Your task to perform on an android device: Clear the shopping cart on amazon. Search for razer blackwidow on amazon, select the first entry, and add it to the cart. Image 0: 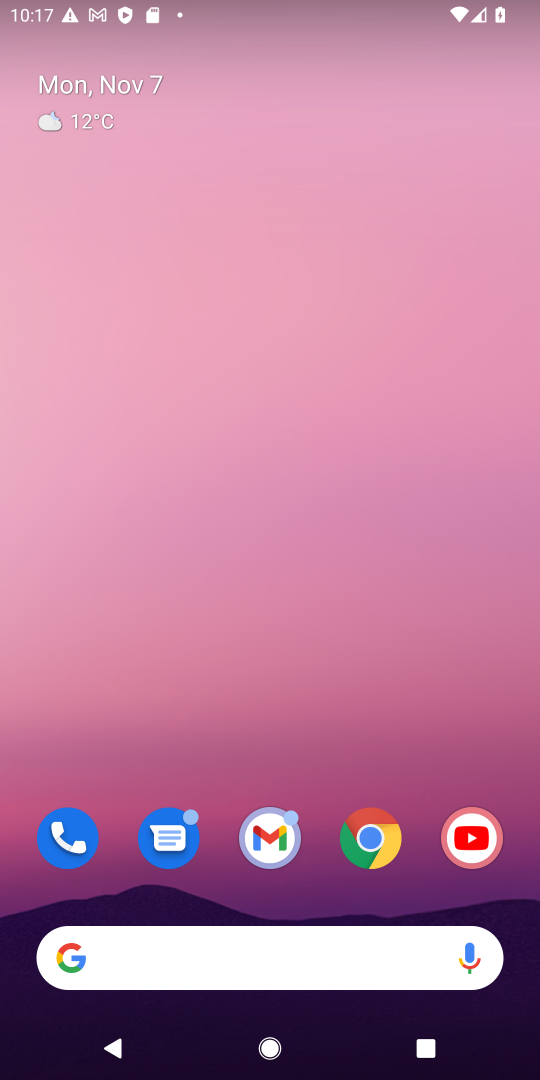
Step 0: click (396, 845)
Your task to perform on an android device: Clear the shopping cart on amazon. Search for razer blackwidow on amazon, select the first entry, and add it to the cart. Image 1: 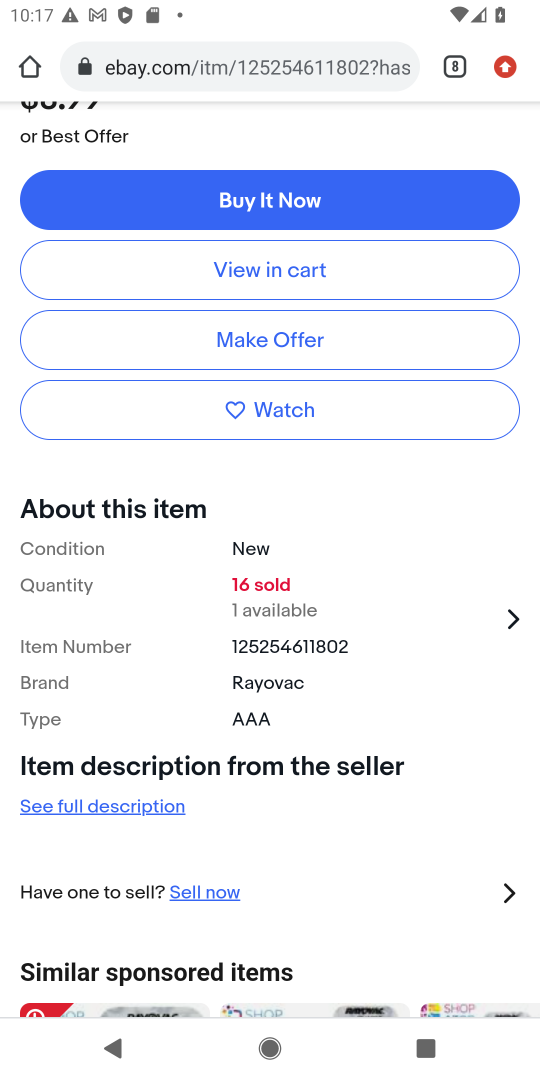
Step 1: click (442, 66)
Your task to perform on an android device: Clear the shopping cart on amazon. Search for razer blackwidow on amazon, select the first entry, and add it to the cart. Image 2: 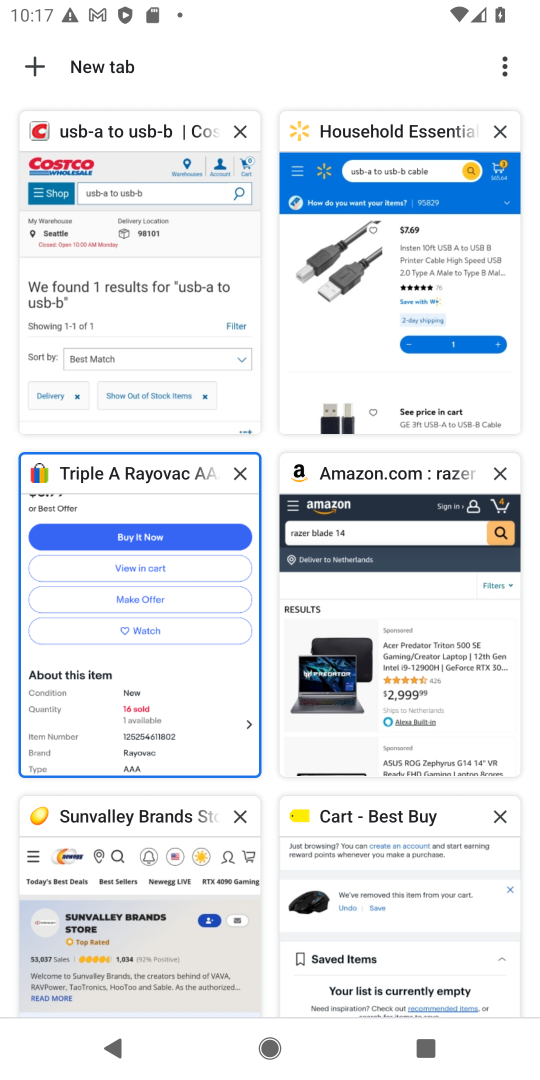
Step 2: click (409, 549)
Your task to perform on an android device: Clear the shopping cart on amazon. Search for razer blackwidow on amazon, select the first entry, and add it to the cart. Image 3: 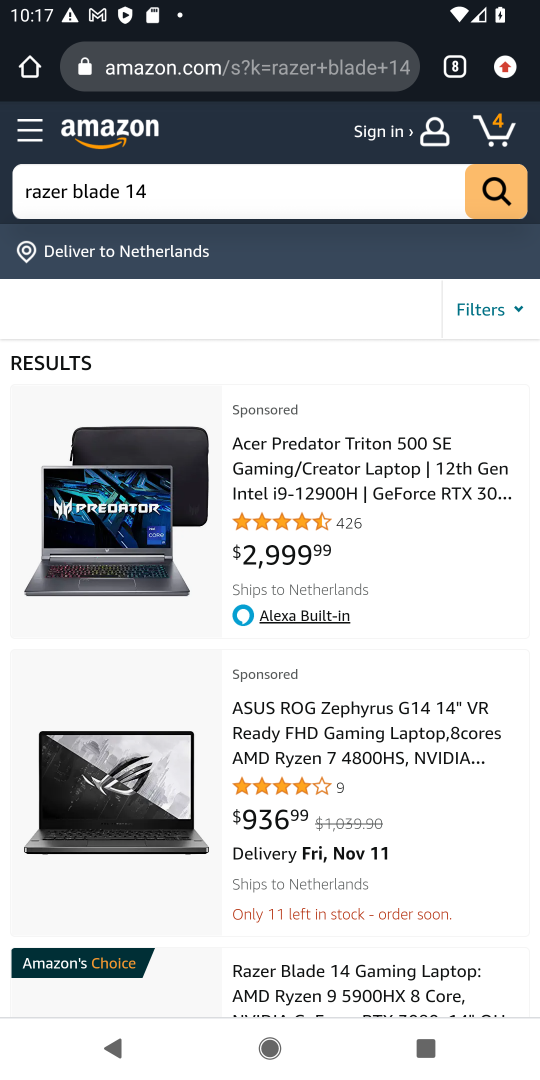
Step 3: click (486, 132)
Your task to perform on an android device: Clear the shopping cart on amazon. Search for razer blackwidow on amazon, select the first entry, and add it to the cart. Image 4: 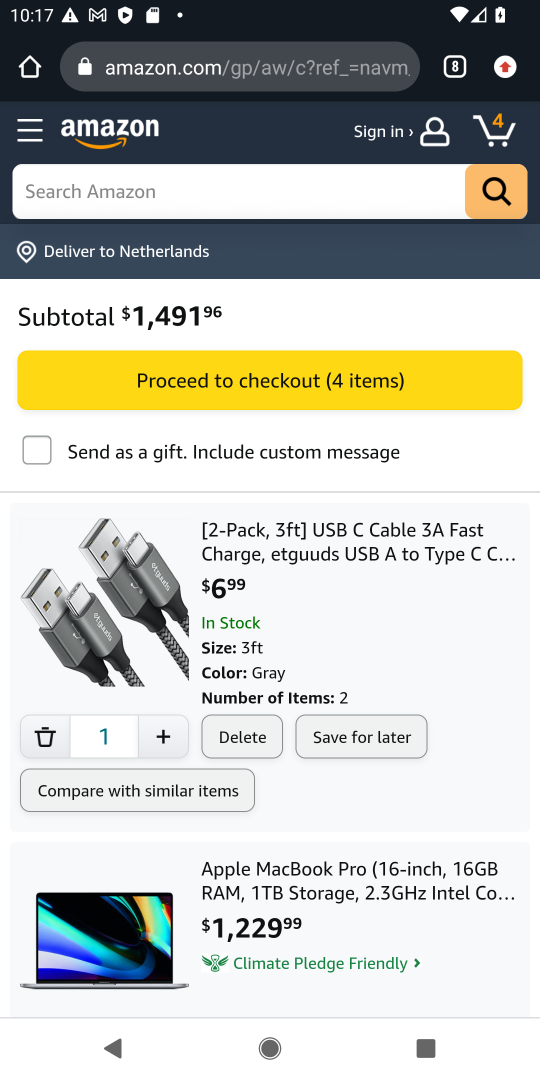
Step 4: click (250, 732)
Your task to perform on an android device: Clear the shopping cart on amazon. Search for razer blackwidow on amazon, select the first entry, and add it to the cart. Image 5: 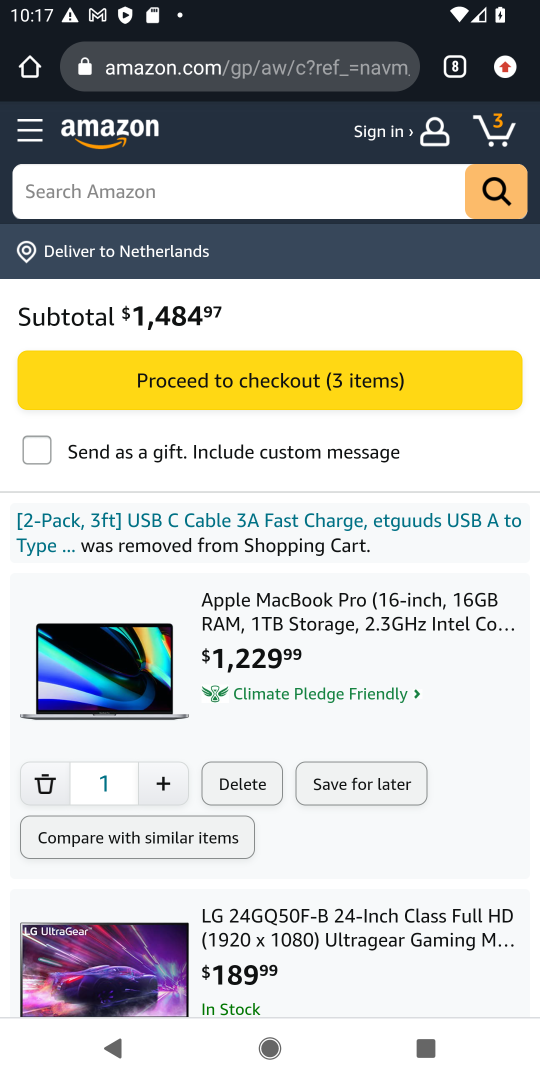
Step 5: click (250, 773)
Your task to perform on an android device: Clear the shopping cart on amazon. Search for razer blackwidow on amazon, select the first entry, and add it to the cart. Image 6: 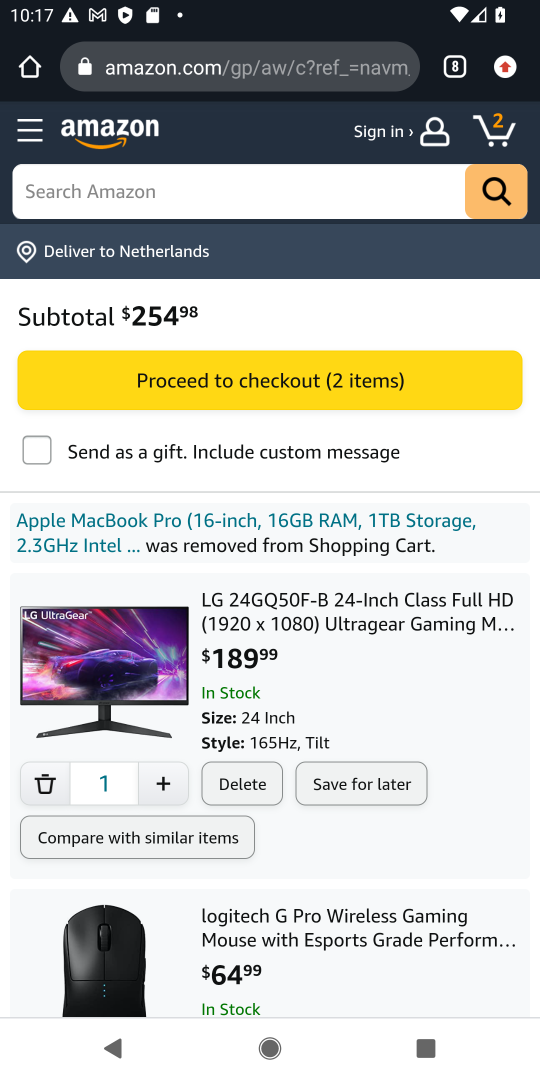
Step 6: click (250, 773)
Your task to perform on an android device: Clear the shopping cart on amazon. Search for razer blackwidow on amazon, select the first entry, and add it to the cart. Image 7: 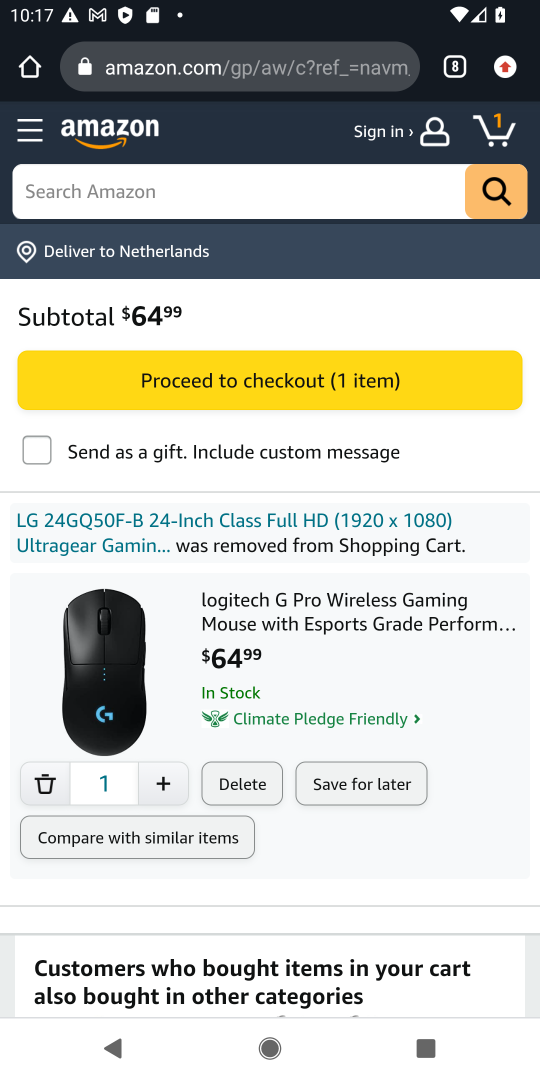
Step 7: click (250, 773)
Your task to perform on an android device: Clear the shopping cart on amazon. Search for razer blackwidow on amazon, select the first entry, and add it to the cart. Image 8: 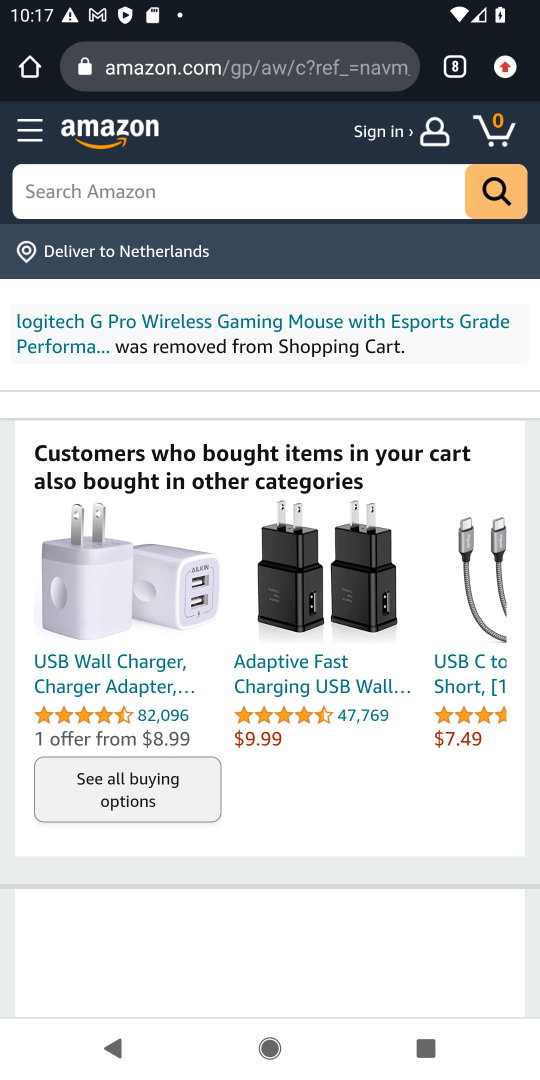
Step 8: click (221, 183)
Your task to perform on an android device: Clear the shopping cart on amazon. Search for razer blackwidow on amazon, select the first entry, and add it to the cart. Image 9: 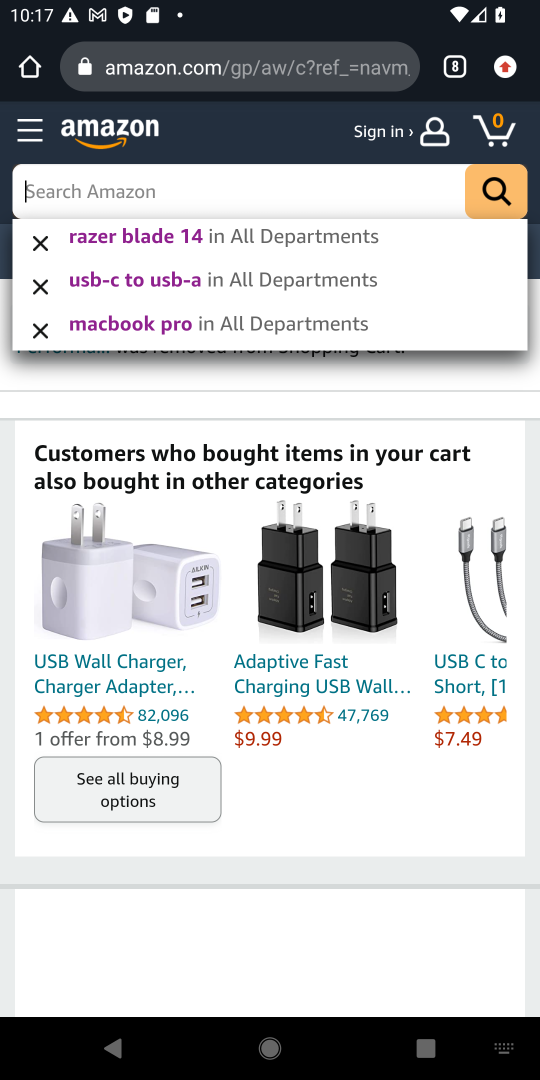
Step 9: type "razer blackwidow"
Your task to perform on an android device: Clear the shopping cart on amazon. Search for razer blackwidow on amazon, select the first entry, and add it to the cart. Image 10: 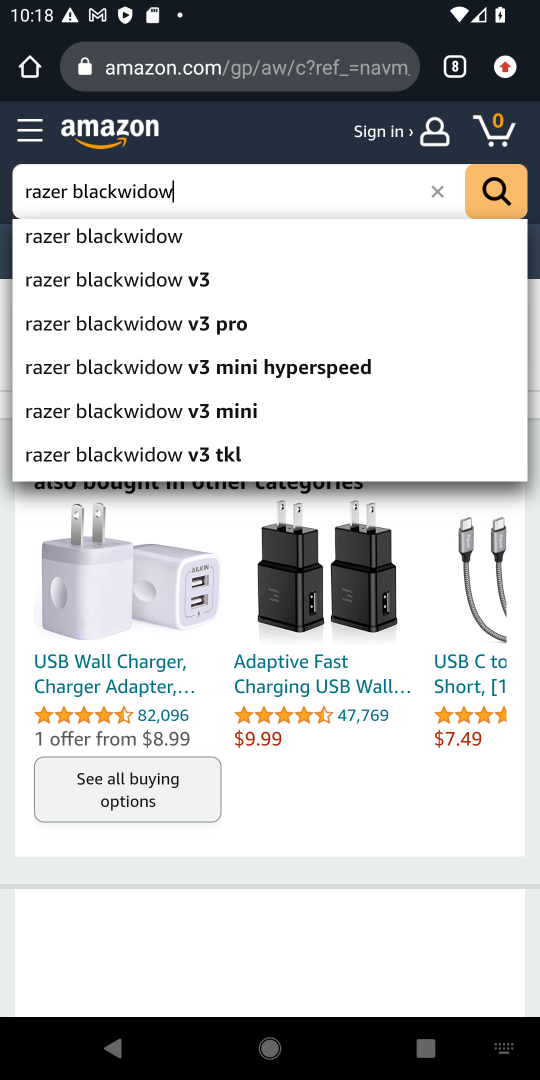
Step 10: click (86, 237)
Your task to perform on an android device: Clear the shopping cart on amazon. Search for razer blackwidow on amazon, select the first entry, and add it to the cart. Image 11: 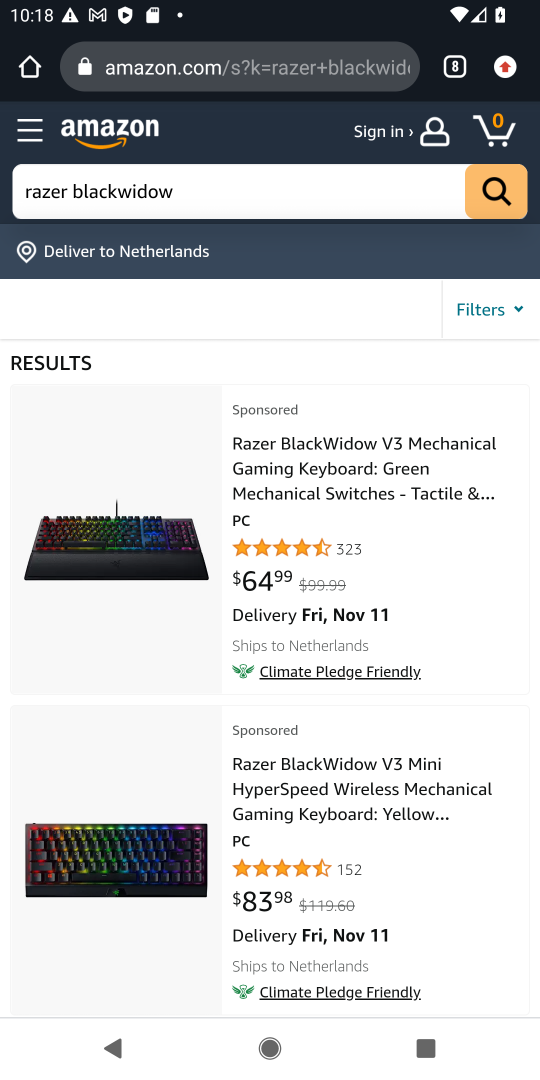
Step 11: click (364, 472)
Your task to perform on an android device: Clear the shopping cart on amazon. Search for razer blackwidow on amazon, select the first entry, and add it to the cart. Image 12: 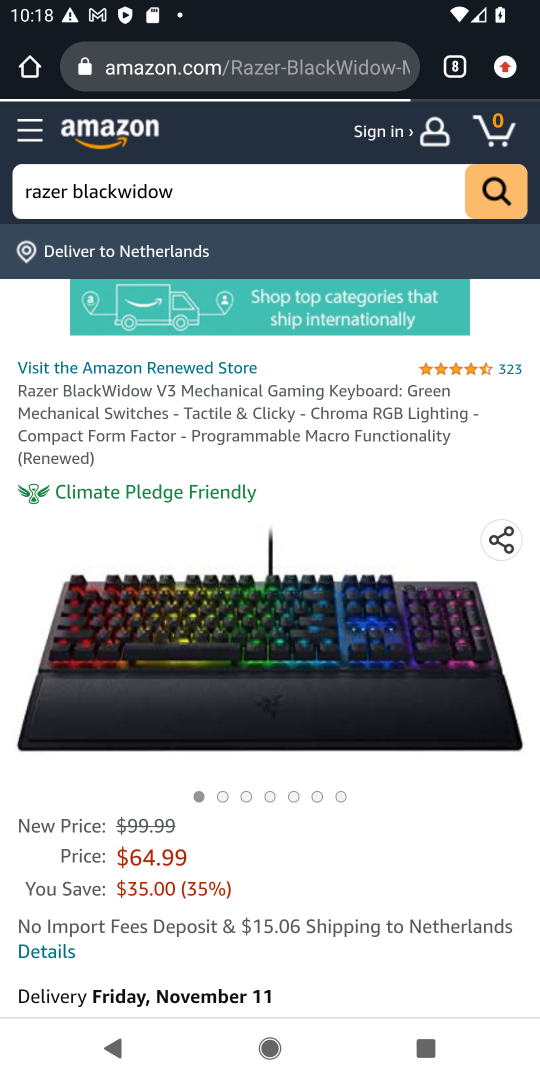
Step 12: drag from (341, 856) to (369, 350)
Your task to perform on an android device: Clear the shopping cart on amazon. Search for razer blackwidow on amazon, select the first entry, and add it to the cart. Image 13: 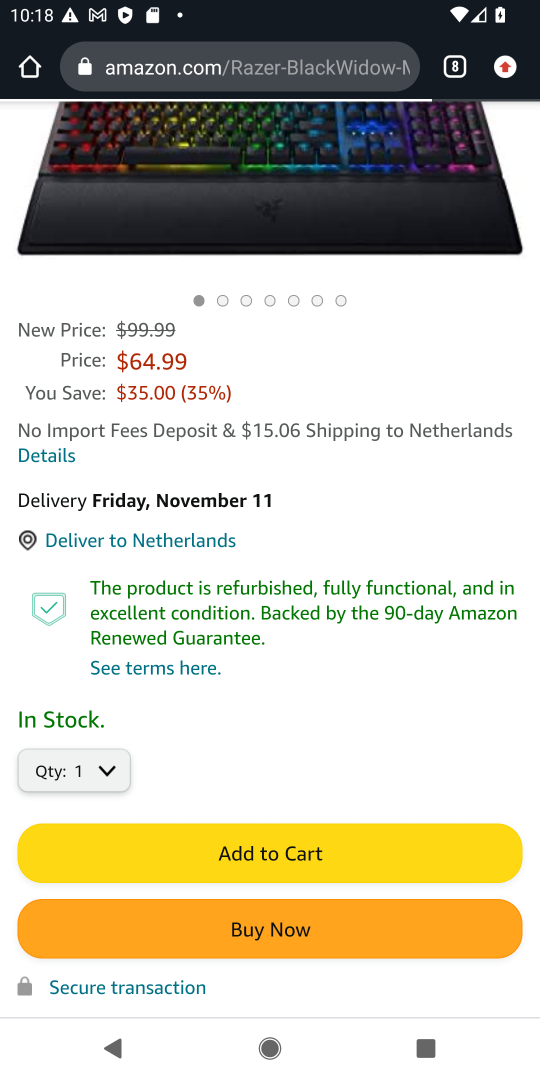
Step 13: click (284, 857)
Your task to perform on an android device: Clear the shopping cart on amazon. Search for razer blackwidow on amazon, select the first entry, and add it to the cart. Image 14: 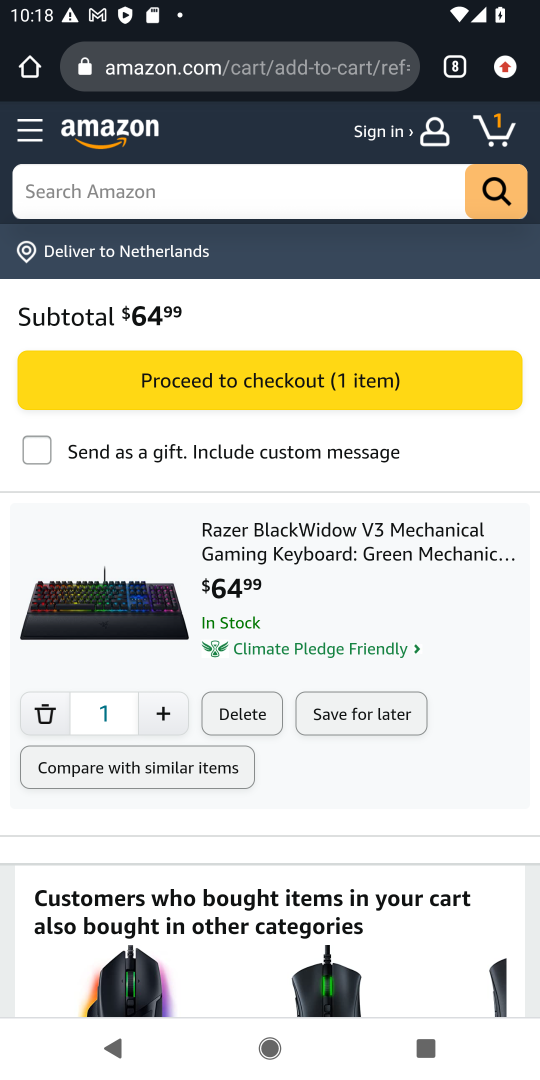
Step 14: task complete